Your task to perform on an android device: toggle data saver in the chrome app Image 0: 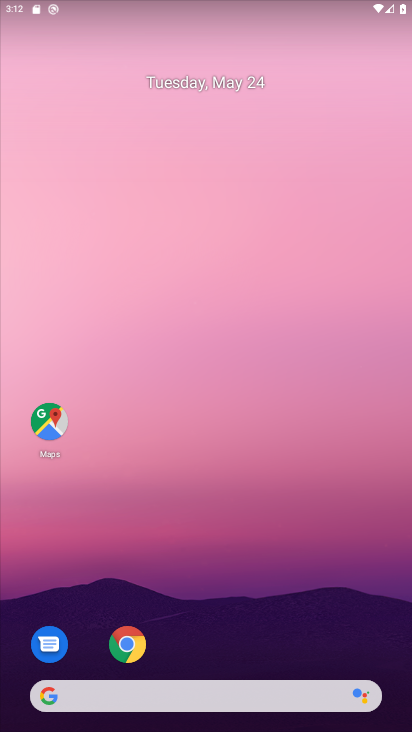
Step 0: click (138, 652)
Your task to perform on an android device: toggle data saver in the chrome app Image 1: 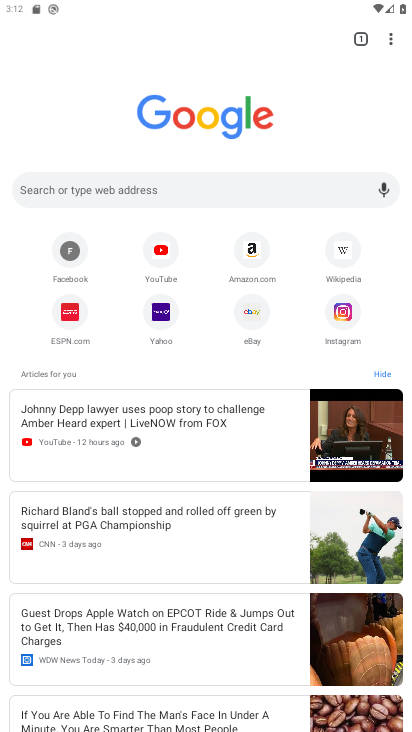
Step 1: click (393, 42)
Your task to perform on an android device: toggle data saver in the chrome app Image 2: 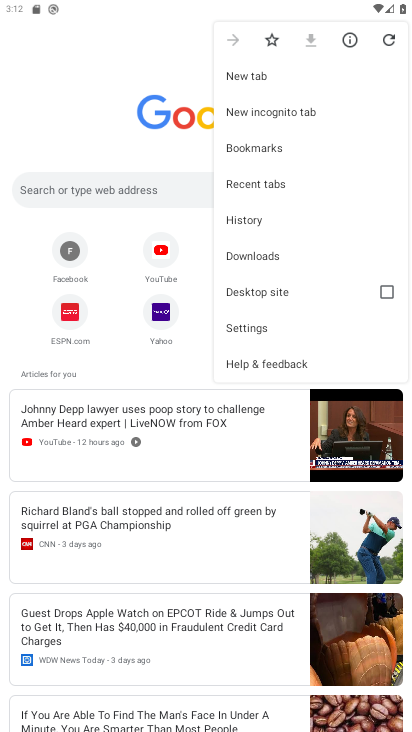
Step 2: click (323, 328)
Your task to perform on an android device: toggle data saver in the chrome app Image 3: 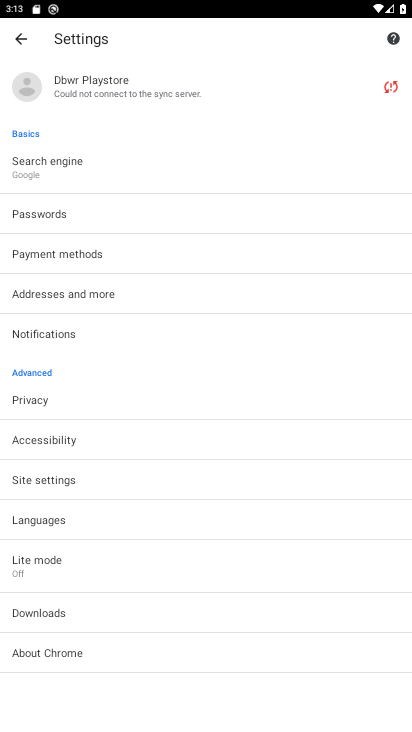
Step 3: click (216, 578)
Your task to perform on an android device: toggle data saver in the chrome app Image 4: 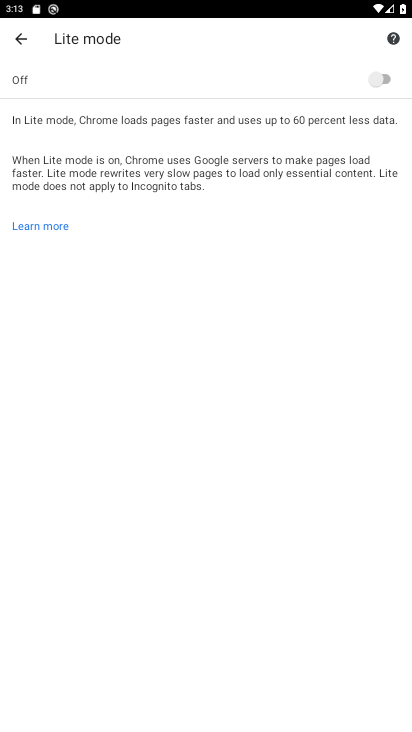
Step 4: click (386, 79)
Your task to perform on an android device: toggle data saver in the chrome app Image 5: 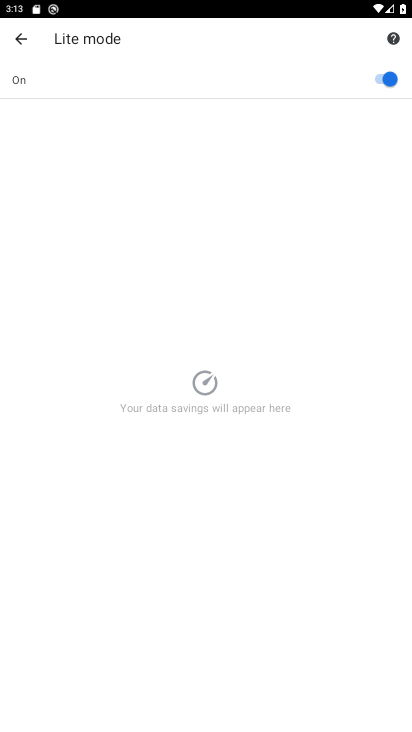
Step 5: task complete